Your task to perform on an android device: toggle location history Image 0: 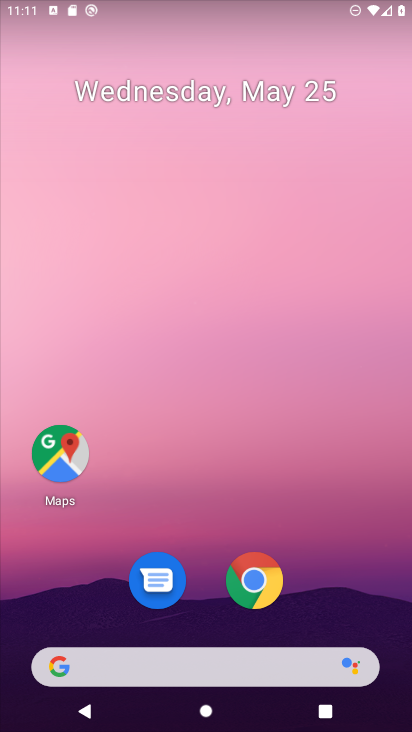
Step 0: press home button
Your task to perform on an android device: toggle location history Image 1: 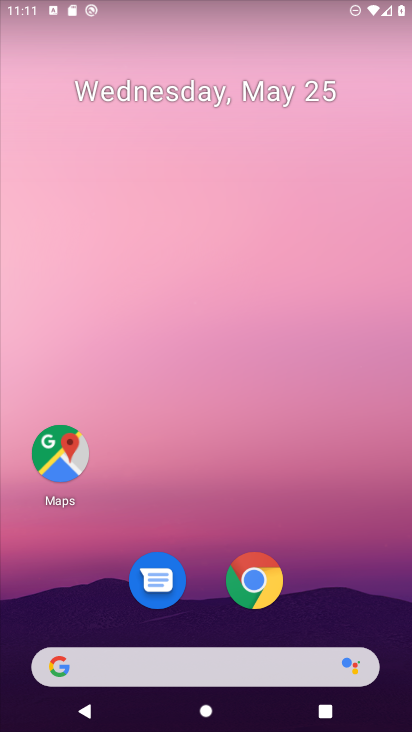
Step 1: drag from (37, 690) to (284, 192)
Your task to perform on an android device: toggle location history Image 2: 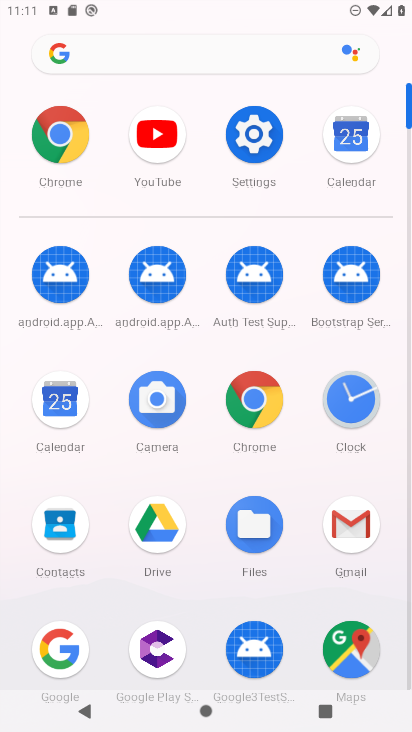
Step 2: click (244, 136)
Your task to perform on an android device: toggle location history Image 3: 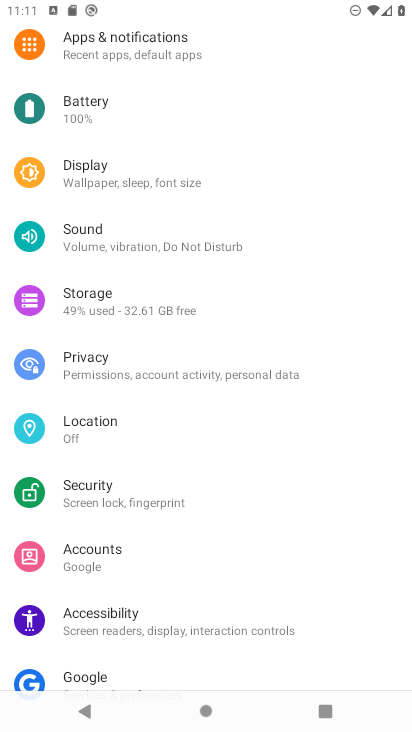
Step 3: click (85, 418)
Your task to perform on an android device: toggle location history Image 4: 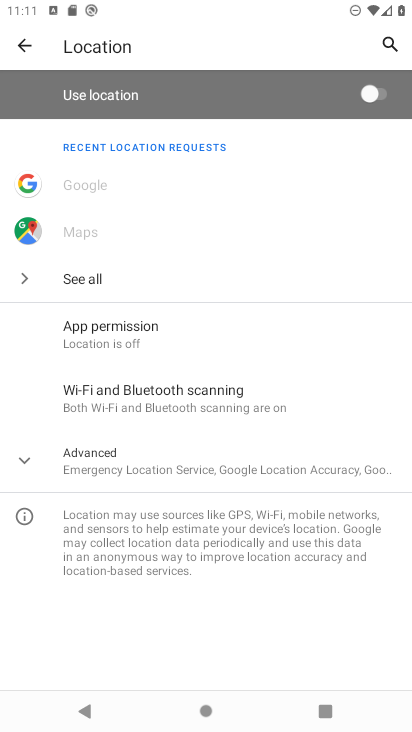
Step 4: click (98, 445)
Your task to perform on an android device: toggle location history Image 5: 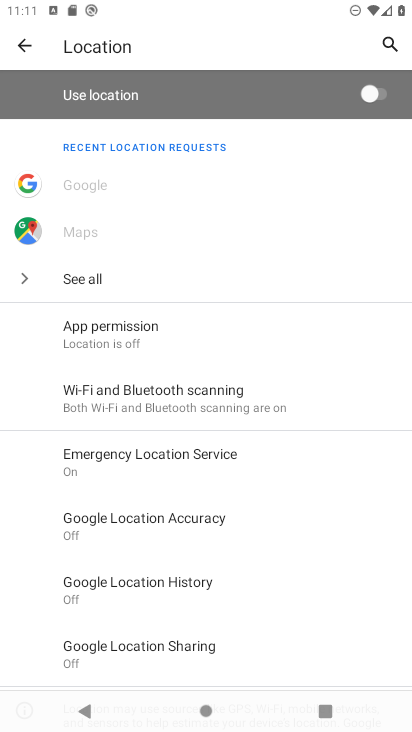
Step 5: click (151, 582)
Your task to perform on an android device: toggle location history Image 6: 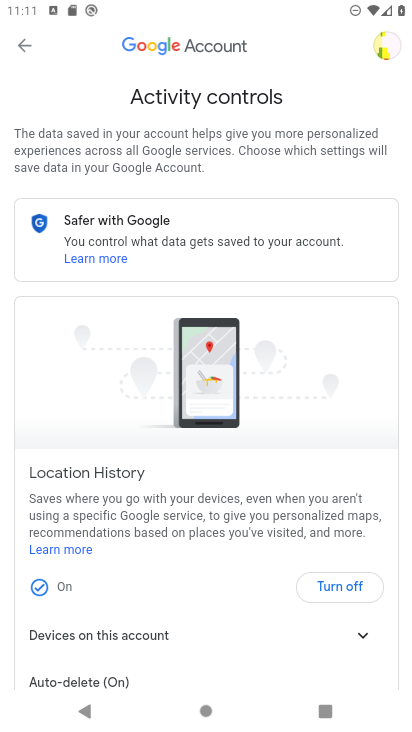
Step 6: click (329, 587)
Your task to perform on an android device: toggle location history Image 7: 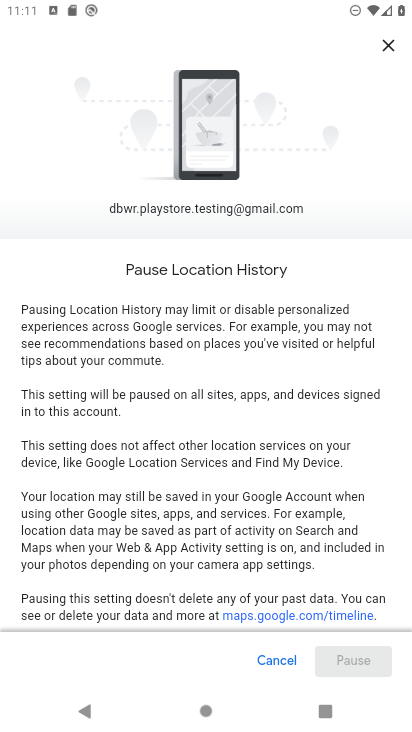
Step 7: drag from (5, 521) to (146, 283)
Your task to perform on an android device: toggle location history Image 8: 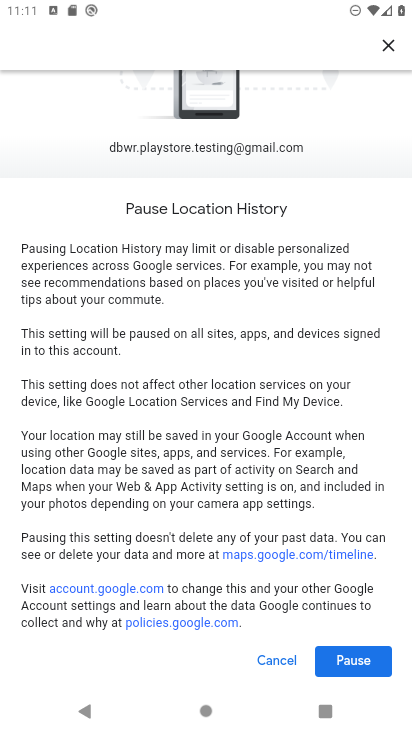
Step 8: click (359, 660)
Your task to perform on an android device: toggle location history Image 9: 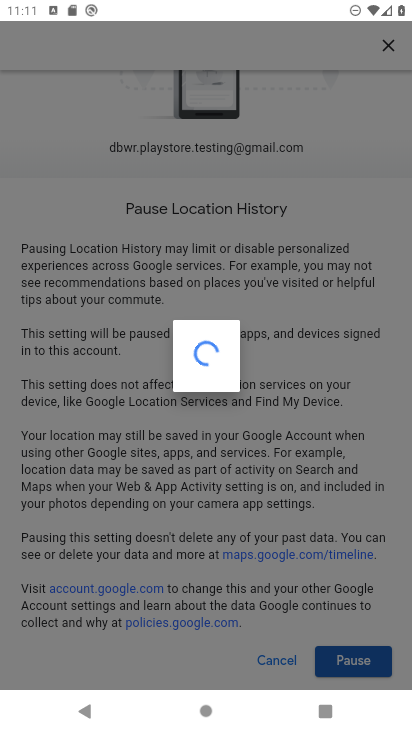
Step 9: task complete